Your task to perform on an android device: What is the capital of Germany? Image 0: 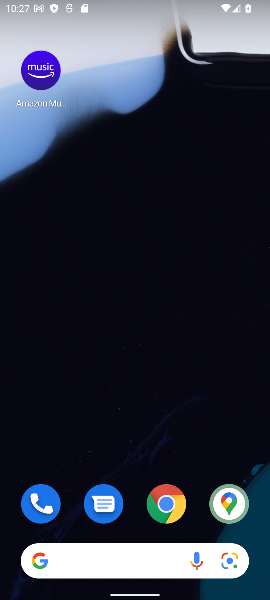
Step 0: click (168, 503)
Your task to perform on an android device: What is the capital of Germany? Image 1: 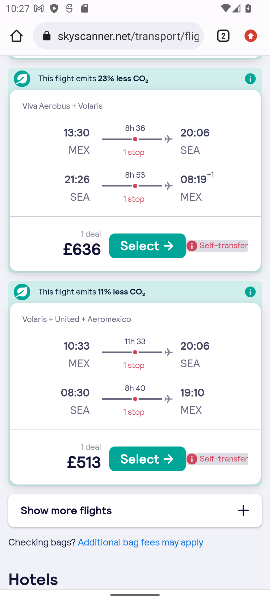
Step 1: click (111, 23)
Your task to perform on an android device: What is the capital of Germany? Image 2: 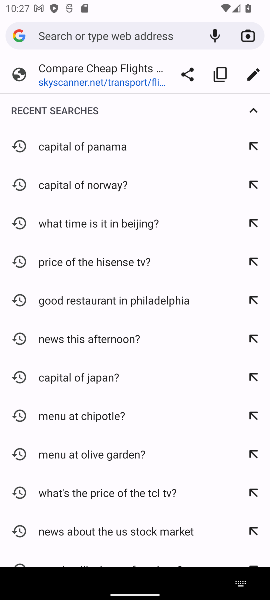
Step 2: type "capital of Germany?"
Your task to perform on an android device: What is the capital of Germany? Image 3: 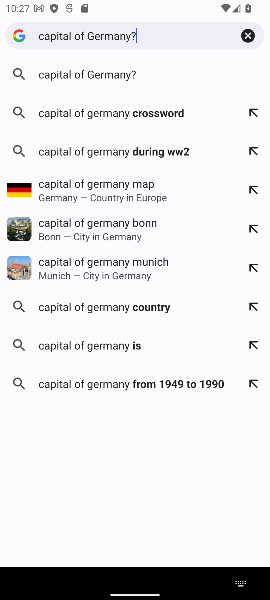
Step 3: click (77, 76)
Your task to perform on an android device: What is the capital of Germany? Image 4: 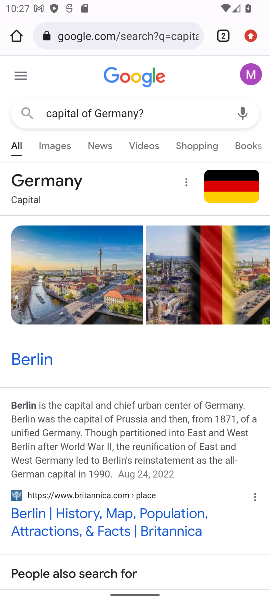
Step 4: task complete